Your task to perform on an android device: What's on my calendar today? Image 0: 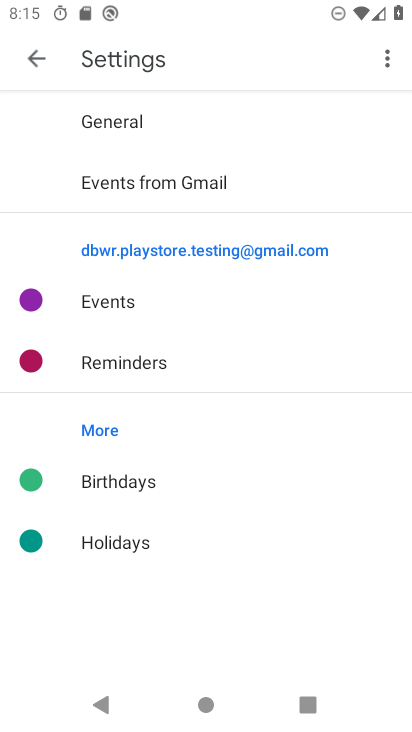
Step 0: press home button
Your task to perform on an android device: What's on my calendar today? Image 1: 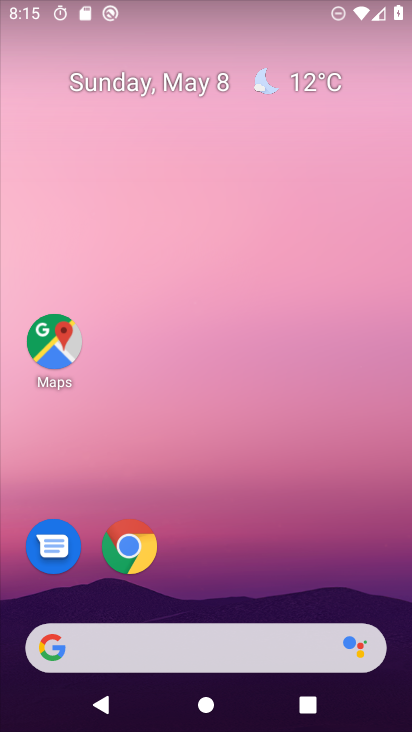
Step 1: drag from (213, 528) to (165, 13)
Your task to perform on an android device: What's on my calendar today? Image 2: 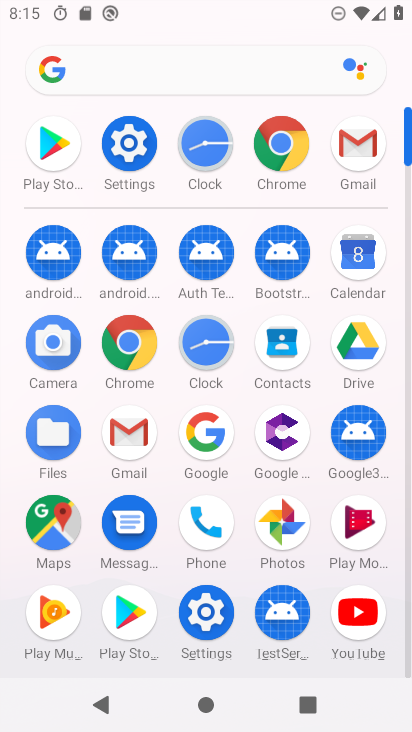
Step 2: click (356, 264)
Your task to perform on an android device: What's on my calendar today? Image 3: 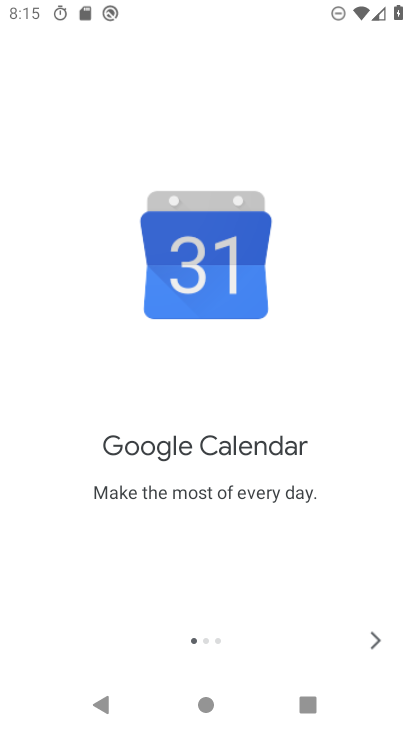
Step 3: click (373, 641)
Your task to perform on an android device: What's on my calendar today? Image 4: 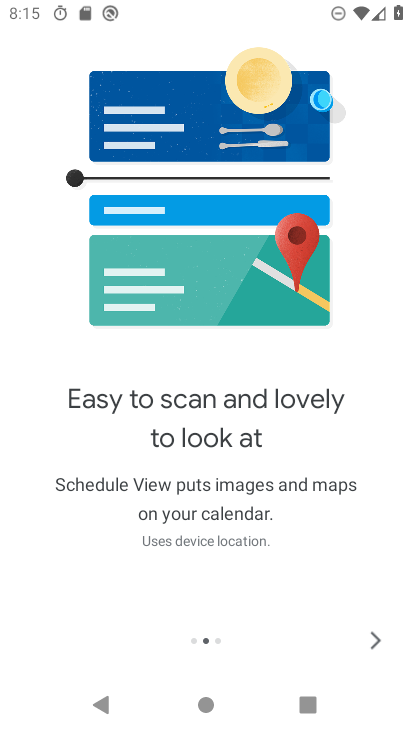
Step 4: click (373, 641)
Your task to perform on an android device: What's on my calendar today? Image 5: 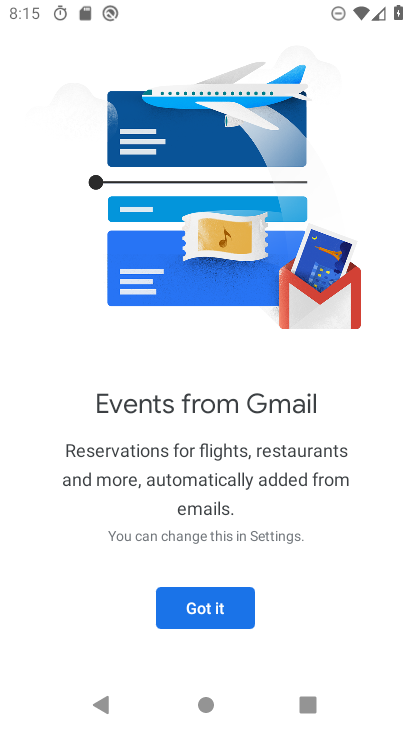
Step 5: click (232, 596)
Your task to perform on an android device: What's on my calendar today? Image 6: 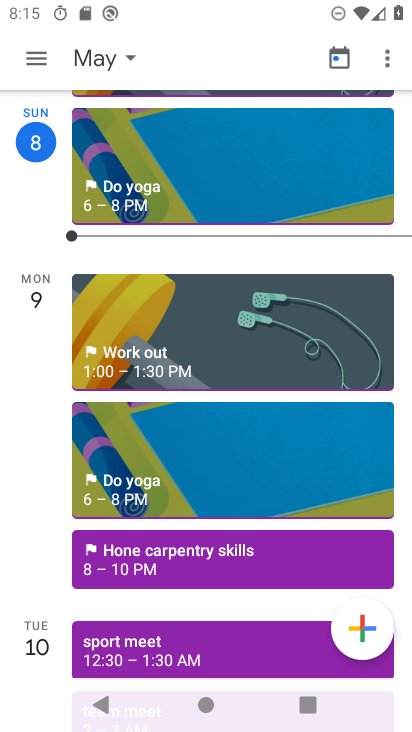
Step 6: task complete